Your task to perform on an android device: visit the assistant section in the google photos Image 0: 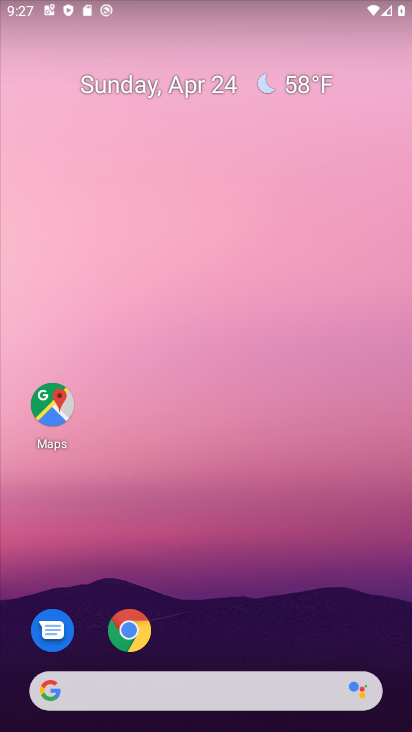
Step 0: drag from (201, 450) to (260, 65)
Your task to perform on an android device: visit the assistant section in the google photos Image 1: 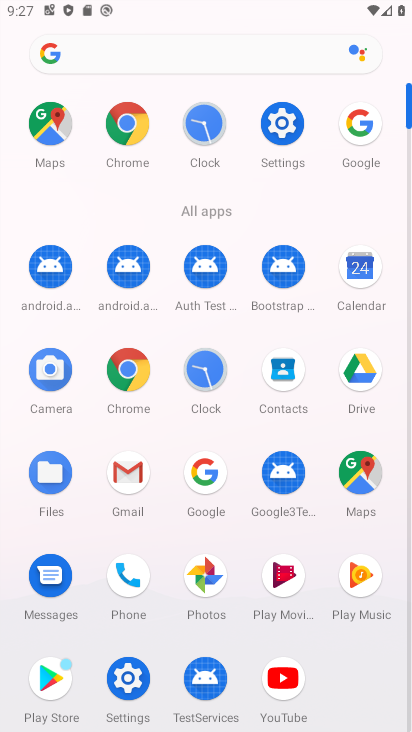
Step 1: click (211, 581)
Your task to perform on an android device: visit the assistant section in the google photos Image 2: 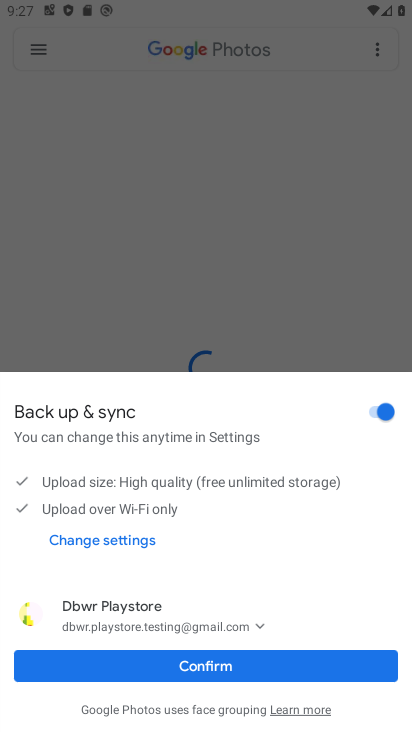
Step 2: click (233, 667)
Your task to perform on an android device: visit the assistant section in the google photos Image 3: 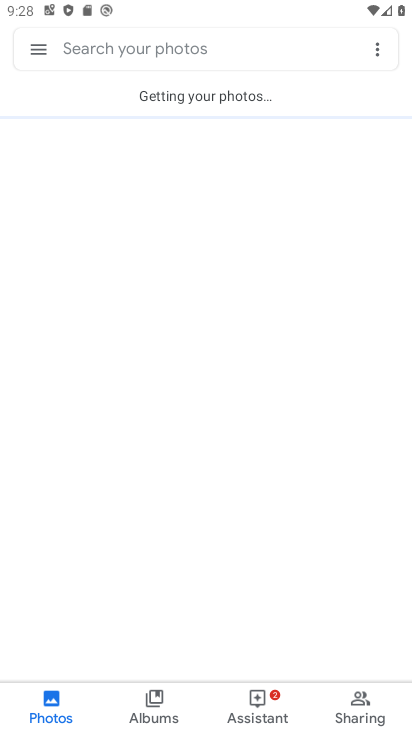
Step 3: click (265, 711)
Your task to perform on an android device: visit the assistant section in the google photos Image 4: 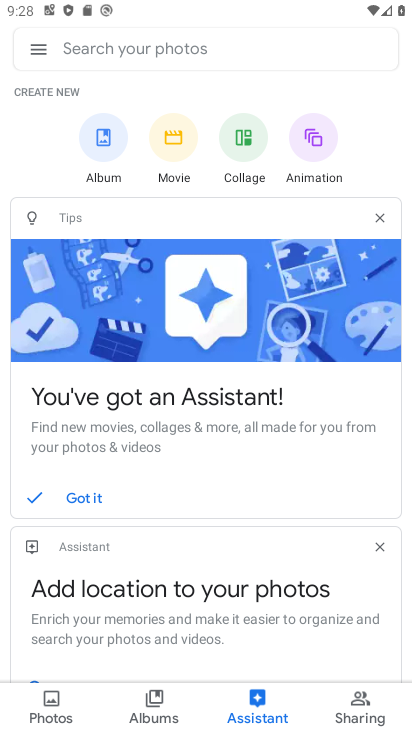
Step 4: task complete